Your task to perform on an android device: turn on the 12-hour format for clock Image 0: 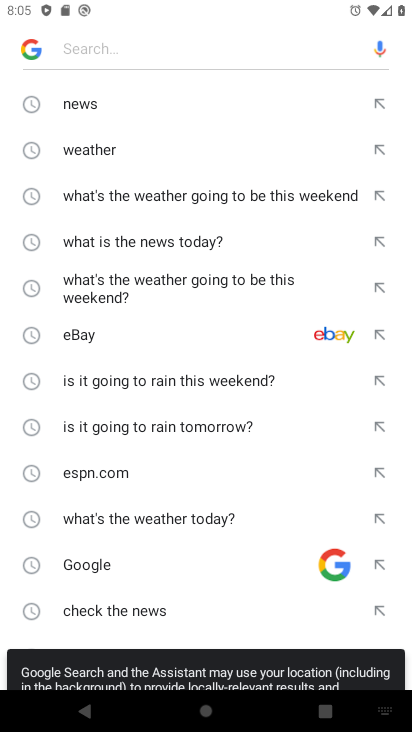
Step 0: press back button
Your task to perform on an android device: turn on the 12-hour format for clock Image 1: 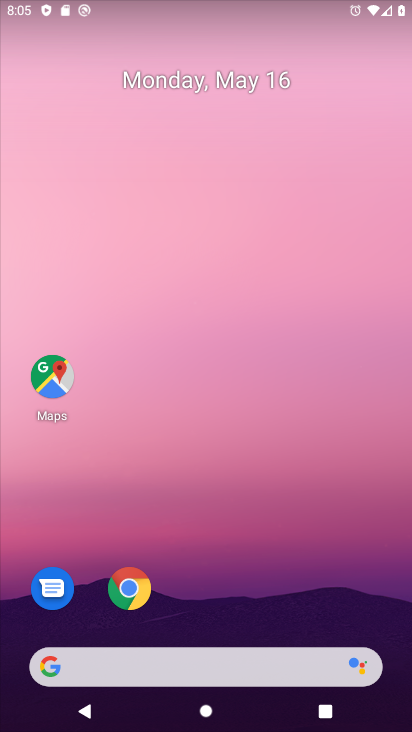
Step 1: drag from (166, 177) to (143, 1)
Your task to perform on an android device: turn on the 12-hour format for clock Image 2: 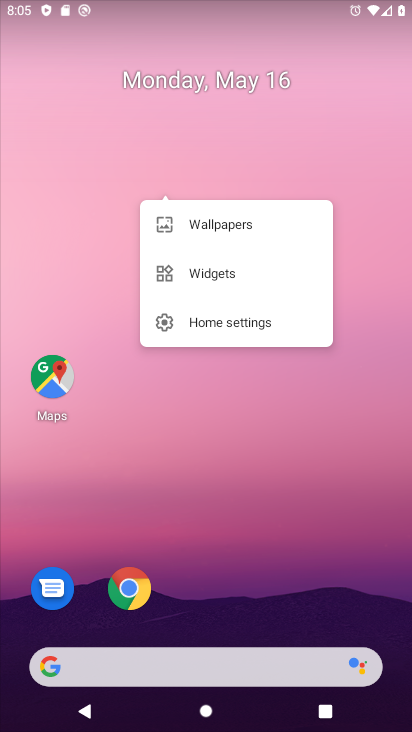
Step 2: drag from (208, 560) to (101, 11)
Your task to perform on an android device: turn on the 12-hour format for clock Image 3: 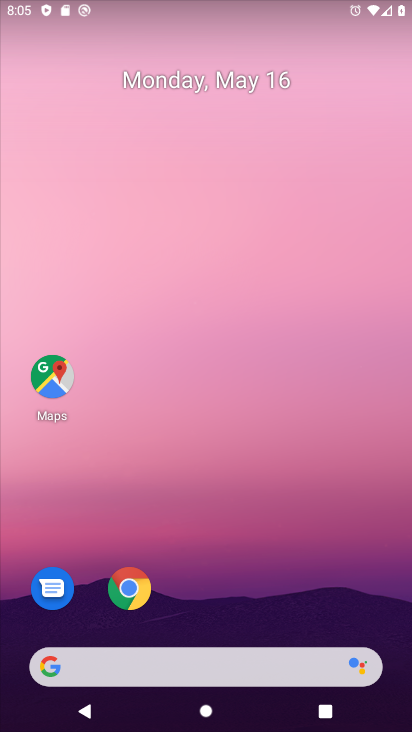
Step 3: drag from (256, 508) to (152, 195)
Your task to perform on an android device: turn on the 12-hour format for clock Image 4: 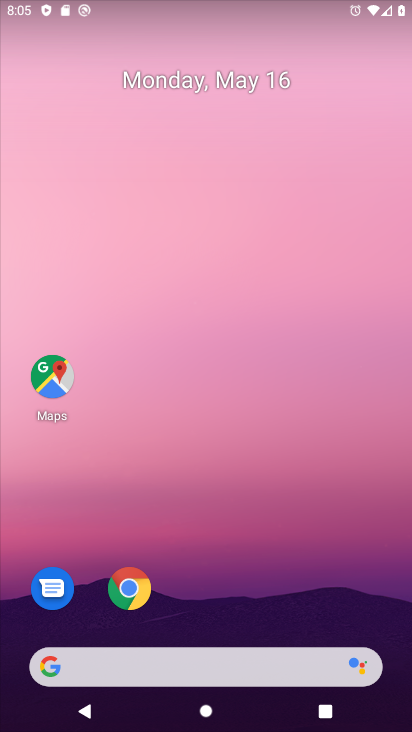
Step 4: drag from (263, 589) to (174, 78)
Your task to perform on an android device: turn on the 12-hour format for clock Image 5: 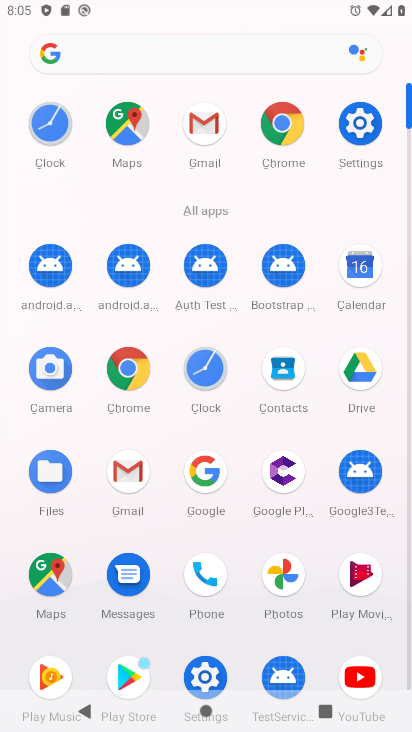
Step 5: click (196, 371)
Your task to perform on an android device: turn on the 12-hour format for clock Image 6: 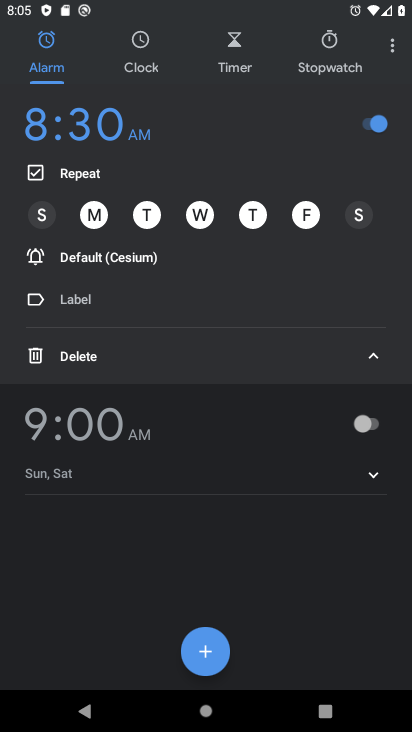
Step 6: click (394, 45)
Your task to perform on an android device: turn on the 12-hour format for clock Image 7: 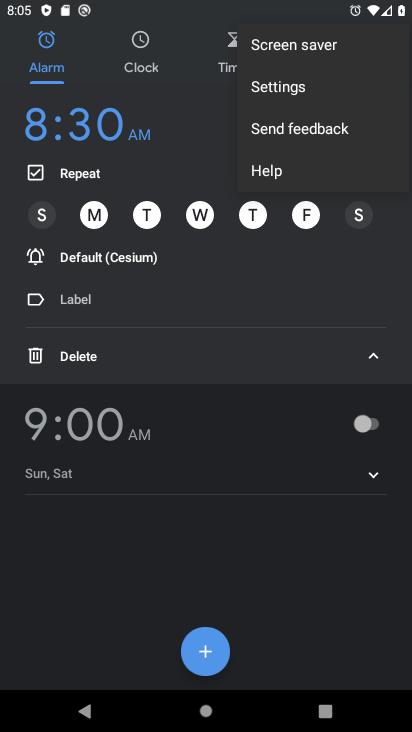
Step 7: click (274, 83)
Your task to perform on an android device: turn on the 12-hour format for clock Image 8: 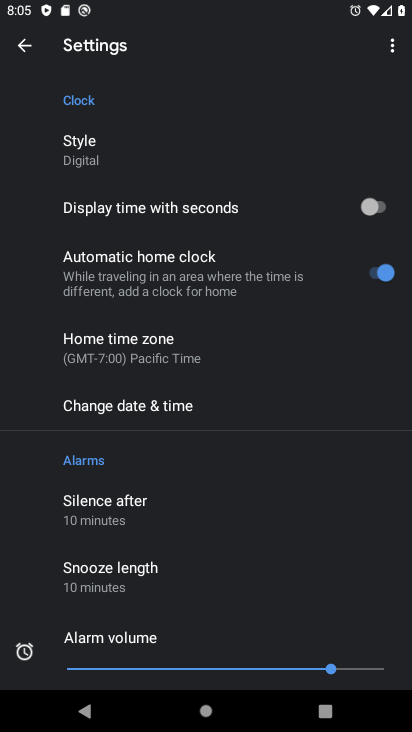
Step 8: click (133, 407)
Your task to perform on an android device: turn on the 12-hour format for clock Image 9: 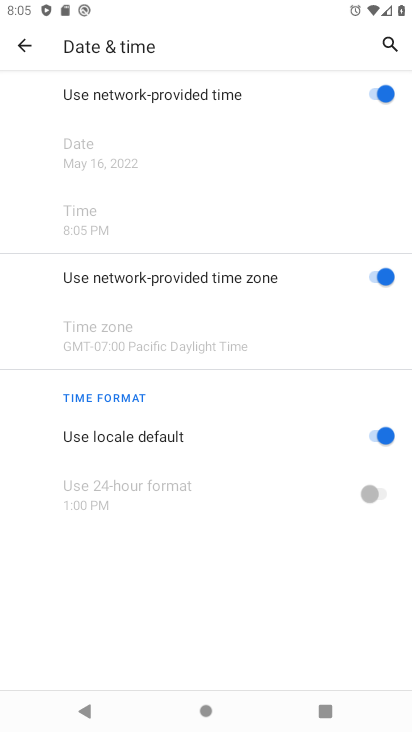
Step 9: task complete